Your task to perform on an android device: refresh tabs in the chrome app Image 0: 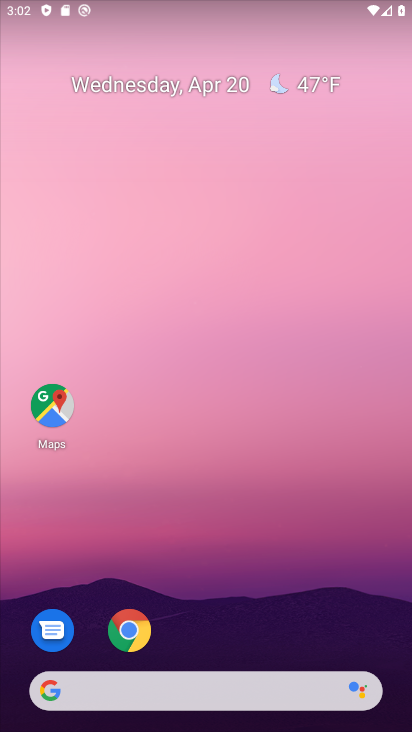
Step 0: drag from (207, 581) to (249, 365)
Your task to perform on an android device: refresh tabs in the chrome app Image 1: 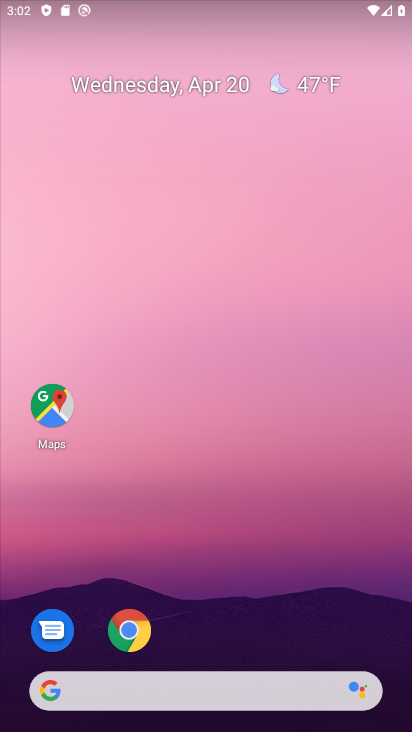
Step 1: drag from (251, 646) to (286, 325)
Your task to perform on an android device: refresh tabs in the chrome app Image 2: 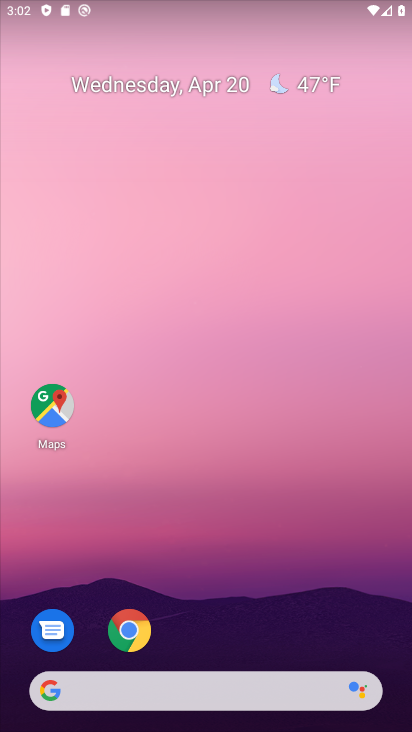
Step 2: drag from (273, 614) to (331, 188)
Your task to perform on an android device: refresh tabs in the chrome app Image 3: 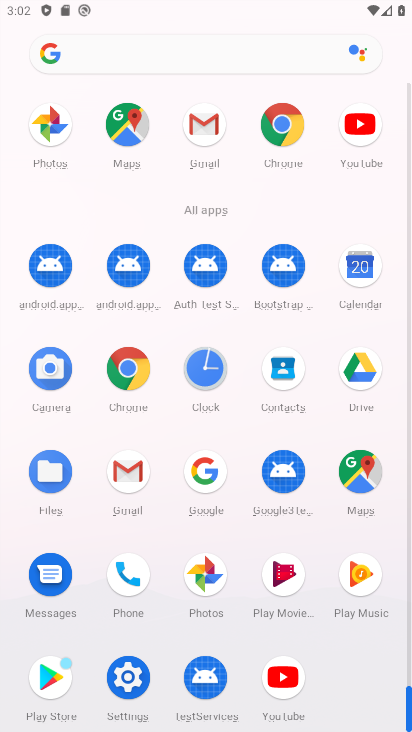
Step 3: click (287, 124)
Your task to perform on an android device: refresh tabs in the chrome app Image 4: 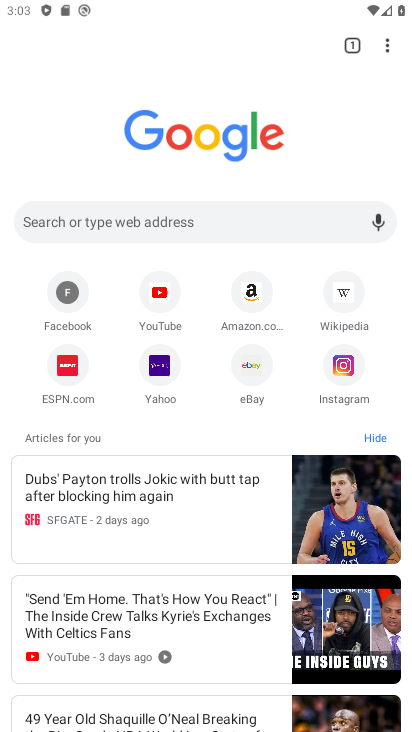
Step 4: click (404, 39)
Your task to perform on an android device: refresh tabs in the chrome app Image 5: 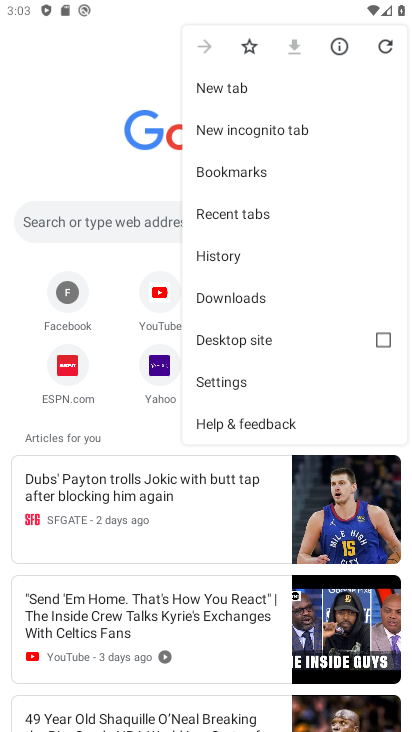
Step 5: click (385, 38)
Your task to perform on an android device: refresh tabs in the chrome app Image 6: 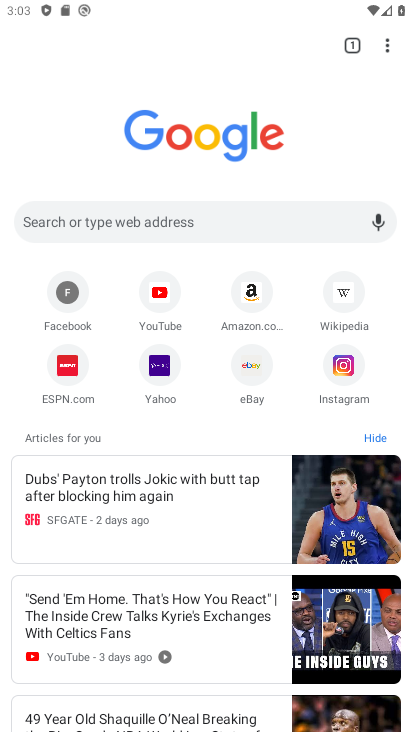
Step 6: task complete